Your task to perform on an android device: Search for Mexican restaurants on Maps Image 0: 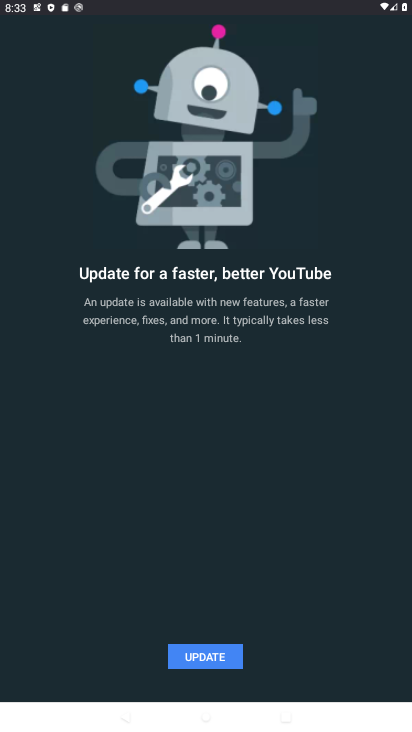
Step 0: drag from (322, 613) to (268, 167)
Your task to perform on an android device: Search for Mexican restaurants on Maps Image 1: 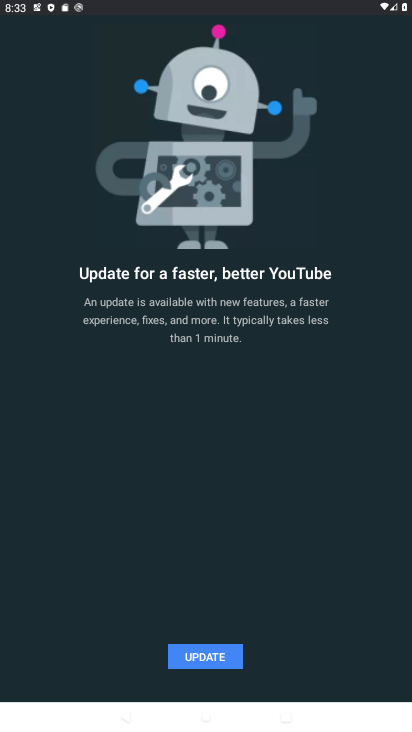
Step 1: press back button
Your task to perform on an android device: Search for Mexican restaurants on Maps Image 2: 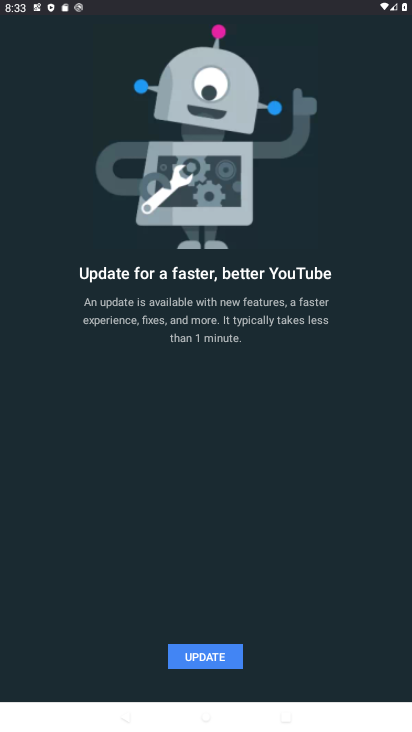
Step 2: press back button
Your task to perform on an android device: Search for Mexican restaurants on Maps Image 3: 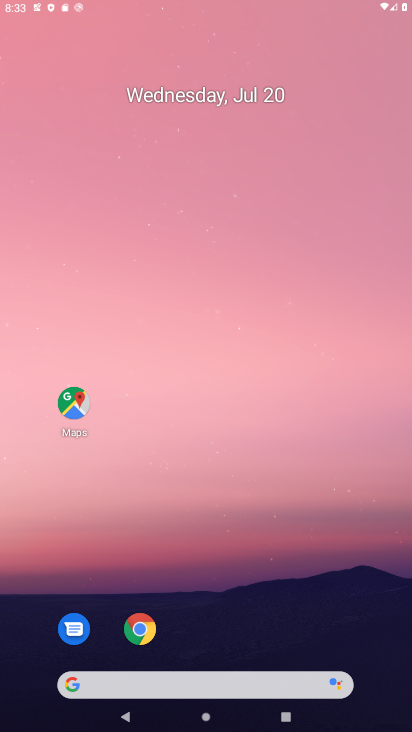
Step 3: press back button
Your task to perform on an android device: Search for Mexican restaurants on Maps Image 4: 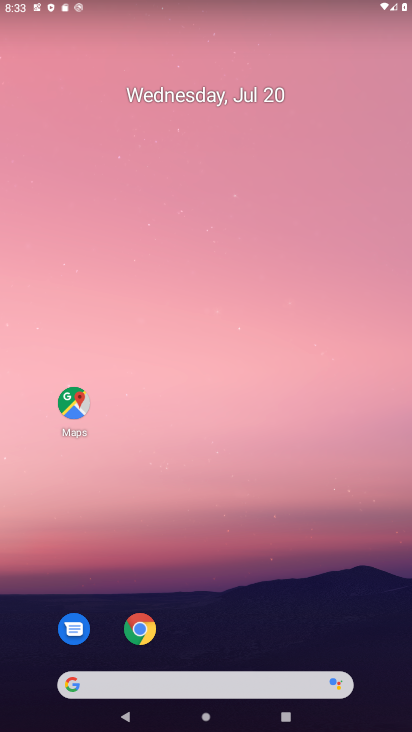
Step 4: drag from (182, 495) to (403, 235)
Your task to perform on an android device: Search for Mexican restaurants on Maps Image 5: 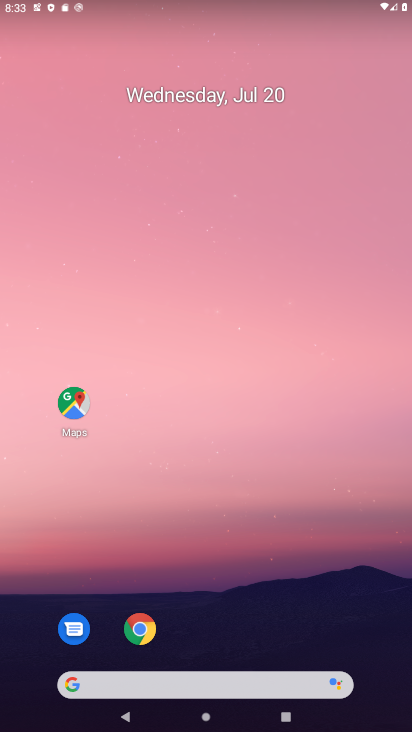
Step 5: click (228, 126)
Your task to perform on an android device: Search for Mexican restaurants on Maps Image 6: 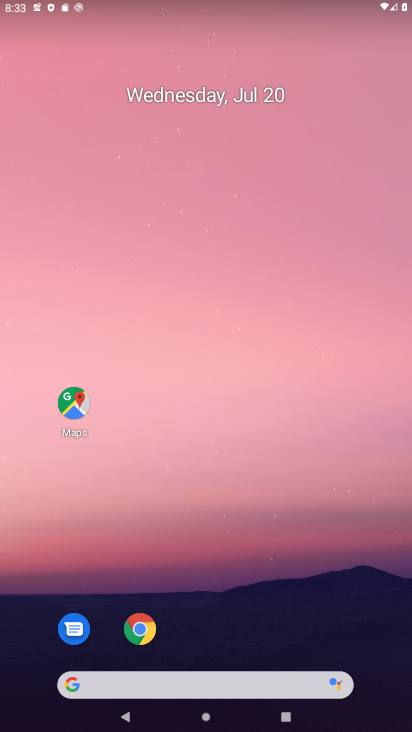
Step 6: drag from (221, 653) to (151, 146)
Your task to perform on an android device: Search for Mexican restaurants on Maps Image 7: 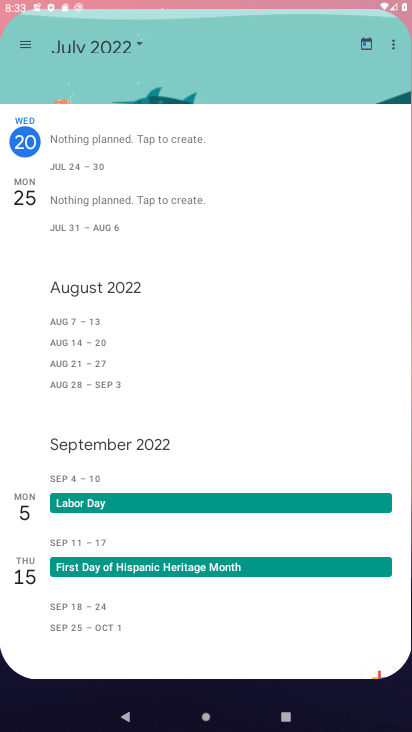
Step 7: drag from (269, 585) to (278, 183)
Your task to perform on an android device: Search for Mexican restaurants on Maps Image 8: 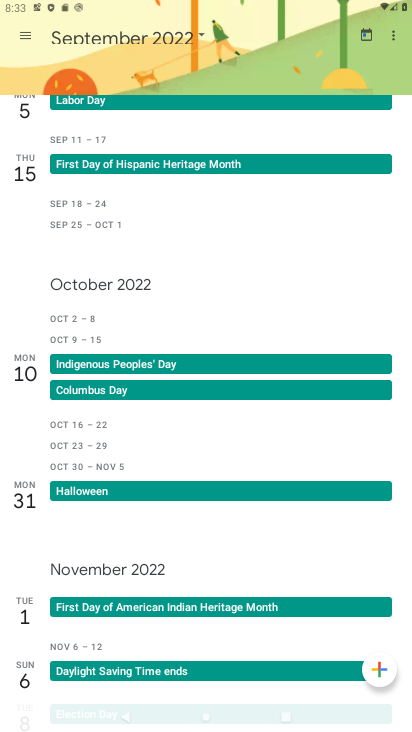
Step 8: drag from (207, 541) to (267, 217)
Your task to perform on an android device: Search for Mexican restaurants on Maps Image 9: 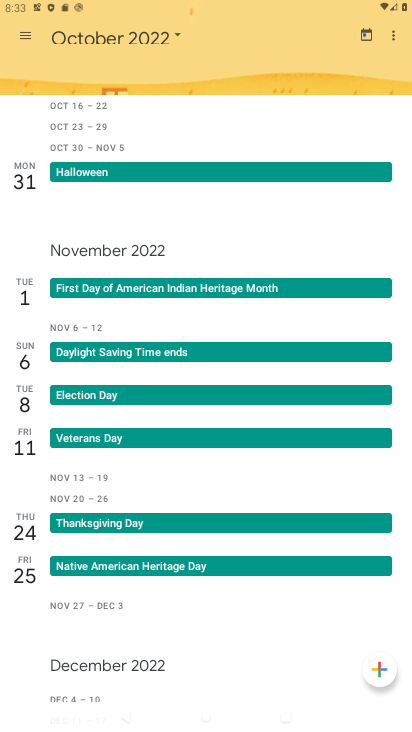
Step 9: drag from (166, 472) to (178, 507)
Your task to perform on an android device: Search for Mexican restaurants on Maps Image 10: 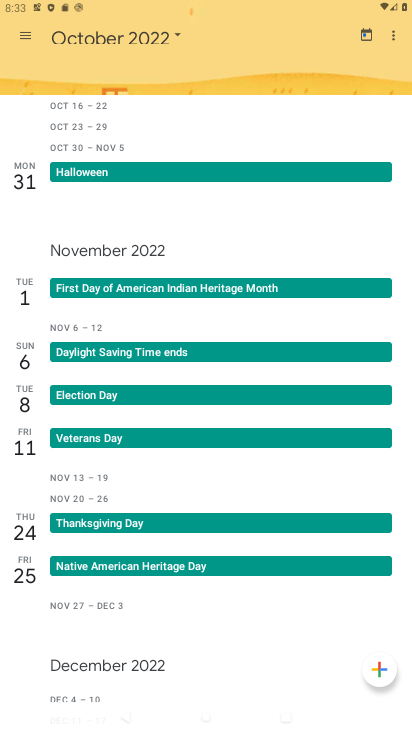
Step 10: drag from (128, 291) to (144, 454)
Your task to perform on an android device: Search for Mexican restaurants on Maps Image 11: 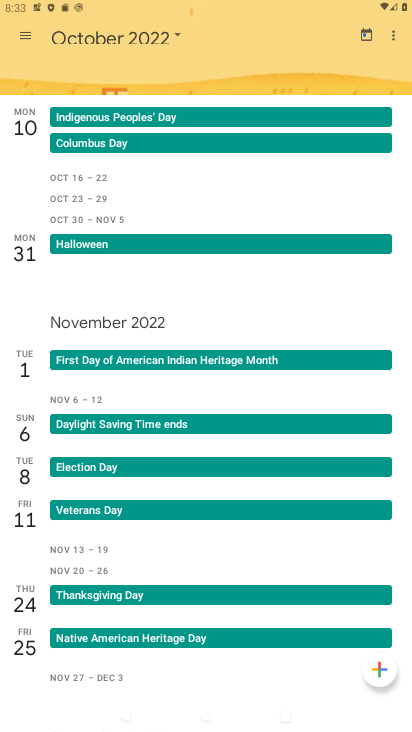
Step 11: drag from (177, 207) to (221, 519)
Your task to perform on an android device: Search for Mexican restaurants on Maps Image 12: 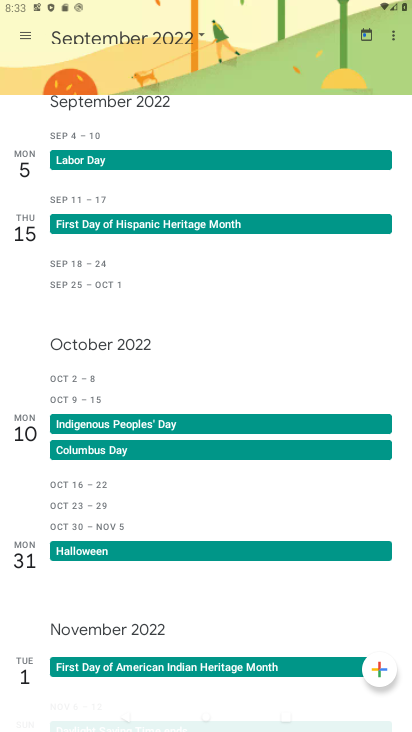
Step 12: press home button
Your task to perform on an android device: Search for Mexican restaurants on Maps Image 13: 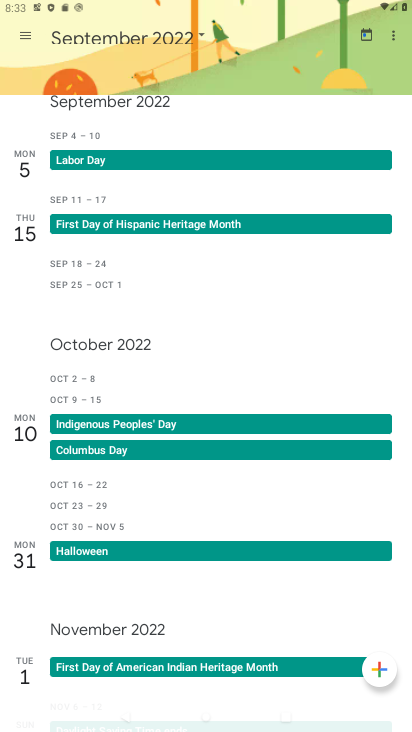
Step 13: press back button
Your task to perform on an android device: Search for Mexican restaurants on Maps Image 14: 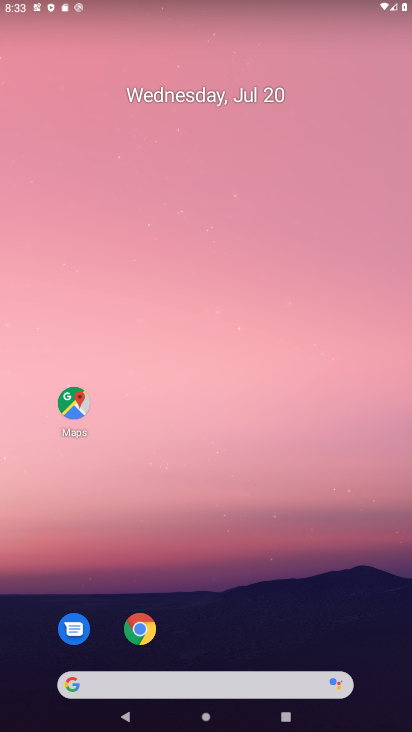
Step 14: drag from (230, 597) to (242, 50)
Your task to perform on an android device: Search for Mexican restaurants on Maps Image 15: 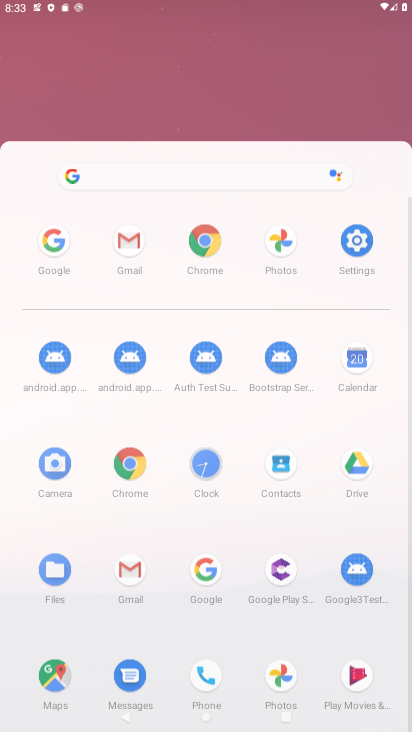
Step 15: drag from (229, 509) to (218, 123)
Your task to perform on an android device: Search for Mexican restaurants on Maps Image 16: 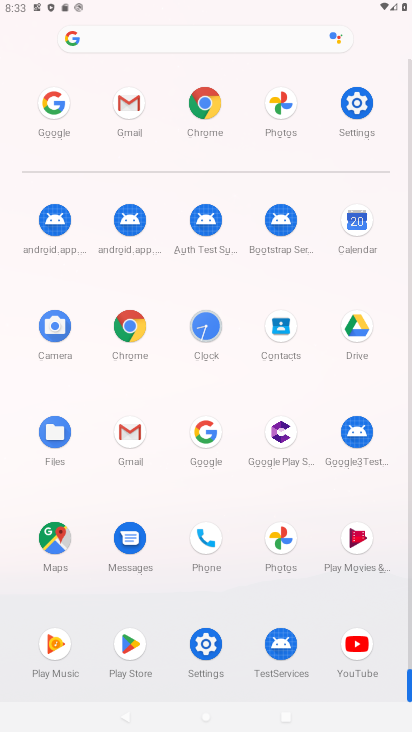
Step 16: click (50, 542)
Your task to perform on an android device: Search for Mexican restaurants on Maps Image 17: 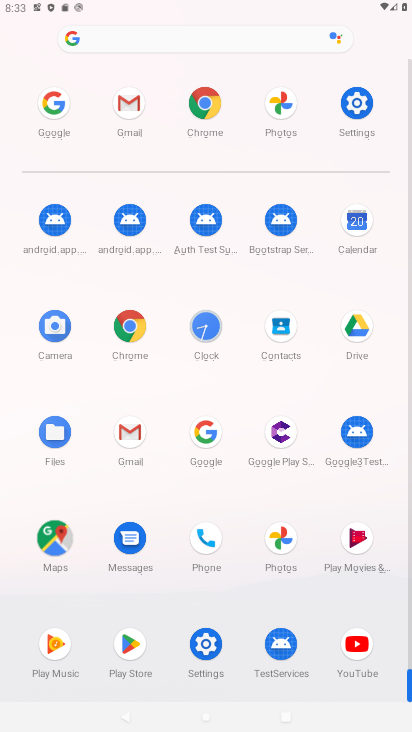
Step 17: click (53, 539)
Your task to perform on an android device: Search for Mexican restaurants on Maps Image 18: 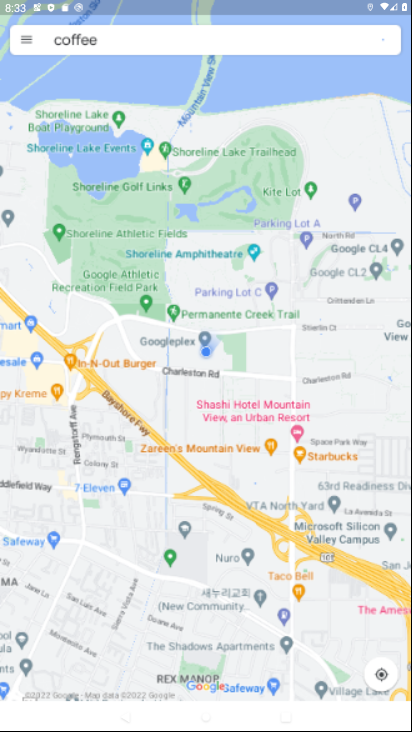
Step 18: click (113, 41)
Your task to perform on an android device: Search for Mexican restaurants on Maps Image 19: 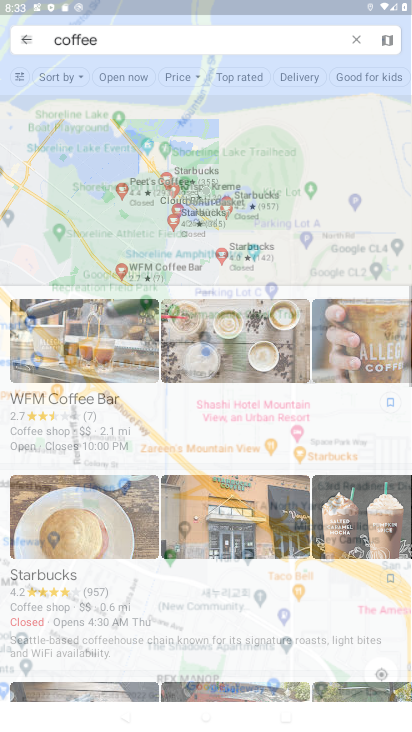
Step 19: click (119, 43)
Your task to perform on an android device: Search for Mexican restaurants on Maps Image 20: 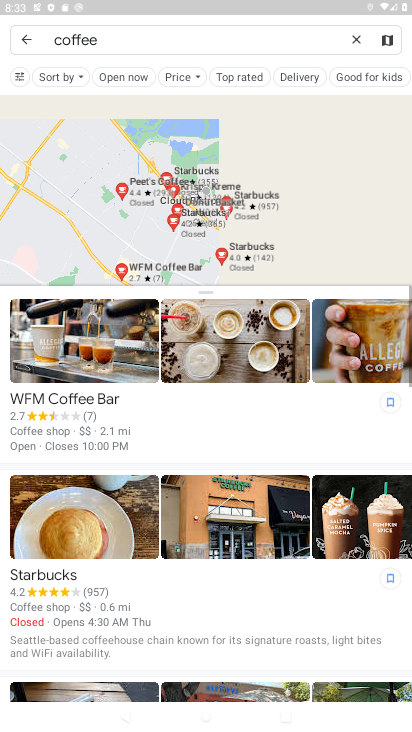
Step 20: click (124, 40)
Your task to perform on an android device: Search for Mexican restaurants on Maps Image 21: 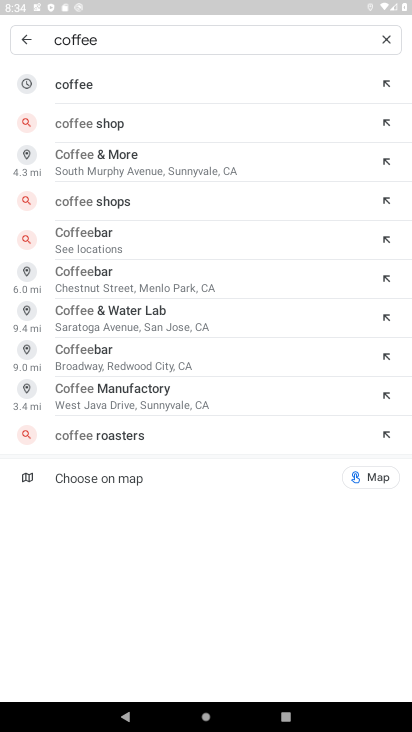
Step 21: click (385, 42)
Your task to perform on an android device: Search for Mexican restaurants on Maps Image 22: 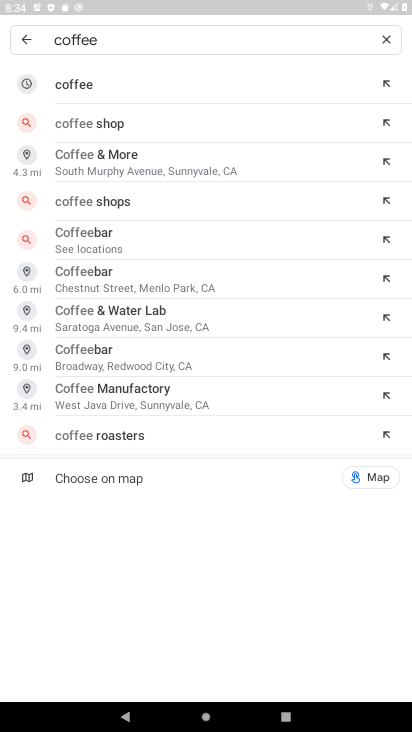
Step 22: click (393, 42)
Your task to perform on an android device: Search for Mexican restaurants on Maps Image 23: 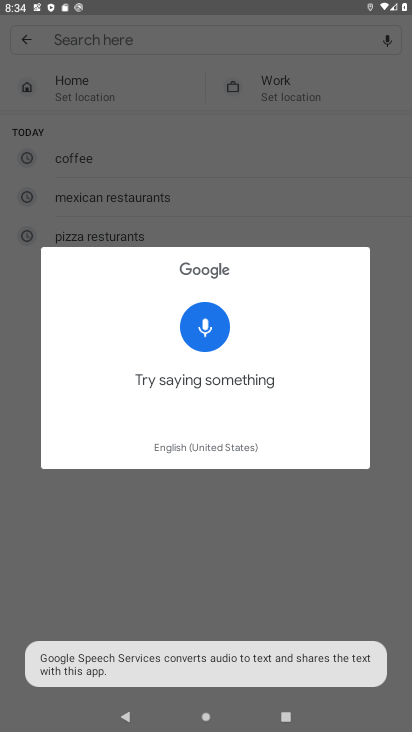
Step 23: click (138, 195)
Your task to perform on an android device: Search for Mexican restaurants on Maps Image 24: 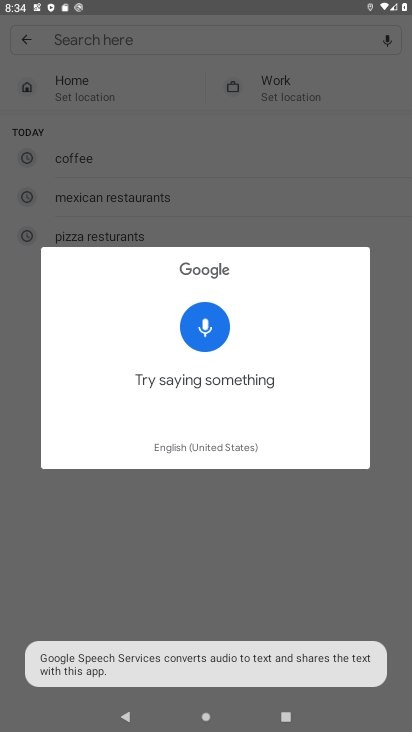
Step 24: click (139, 197)
Your task to perform on an android device: Search for Mexican restaurants on Maps Image 25: 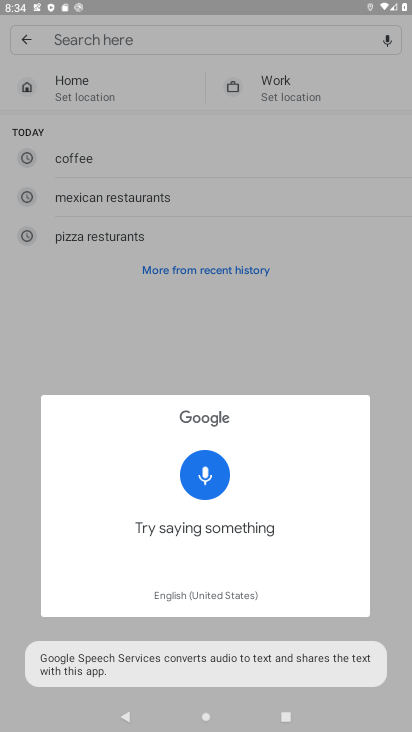
Step 25: click (140, 196)
Your task to perform on an android device: Search for Mexican restaurants on Maps Image 26: 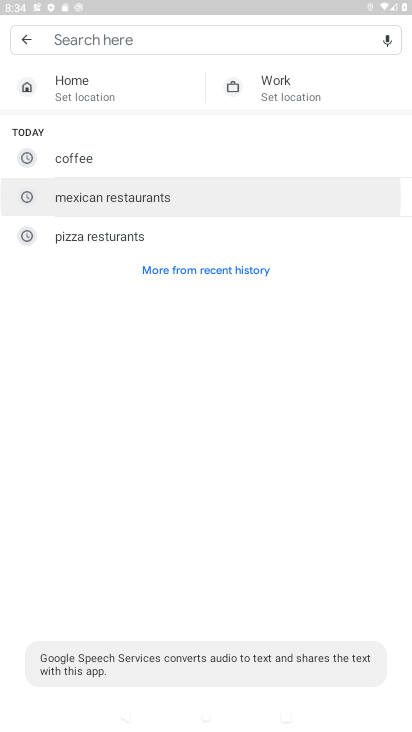
Step 26: task complete